Your task to perform on an android device: turn off location history Image 0: 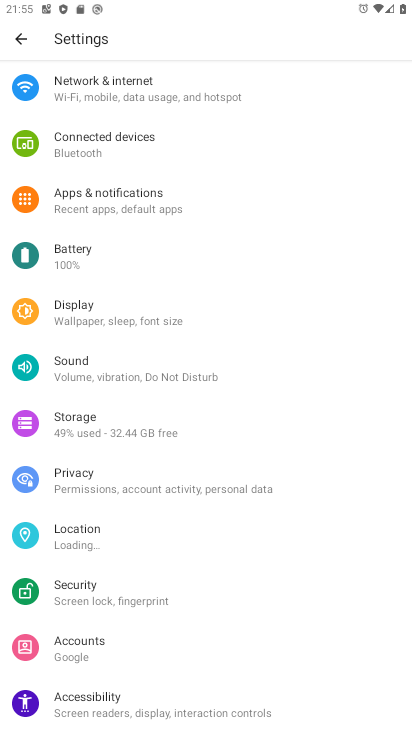
Step 0: press home button
Your task to perform on an android device: turn off location history Image 1: 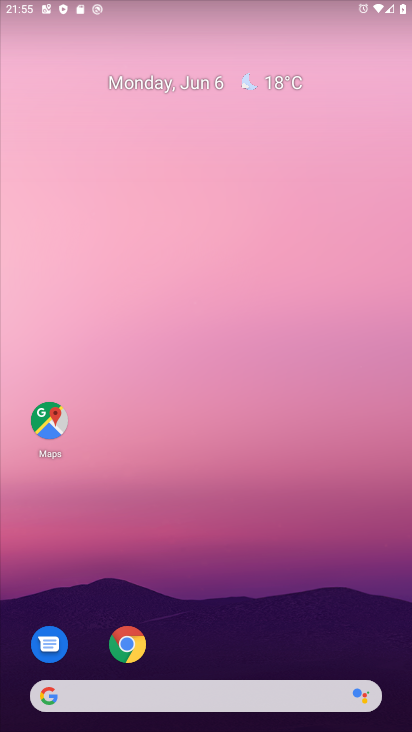
Step 1: drag from (309, 631) to (292, 272)
Your task to perform on an android device: turn off location history Image 2: 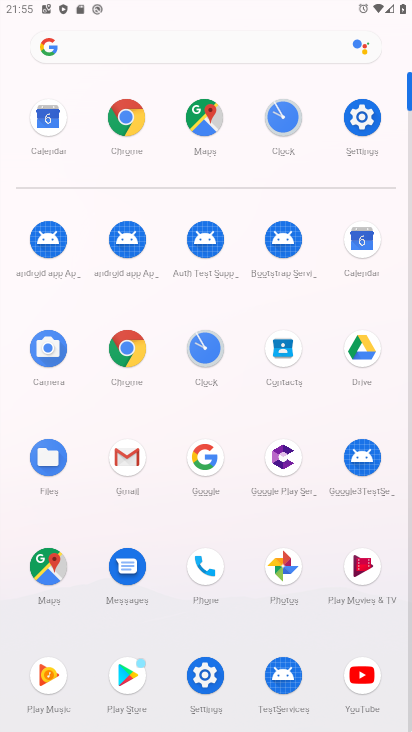
Step 2: click (201, 691)
Your task to perform on an android device: turn off location history Image 3: 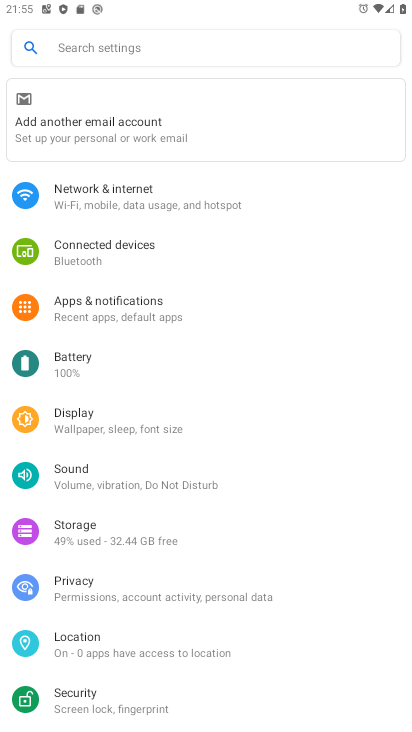
Step 3: click (138, 648)
Your task to perform on an android device: turn off location history Image 4: 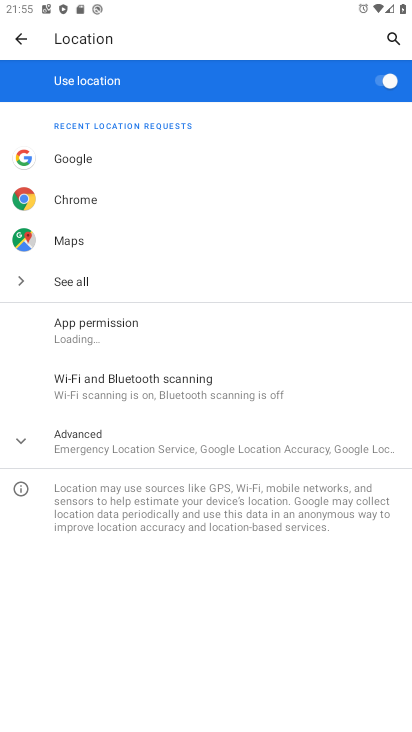
Step 4: click (210, 438)
Your task to perform on an android device: turn off location history Image 5: 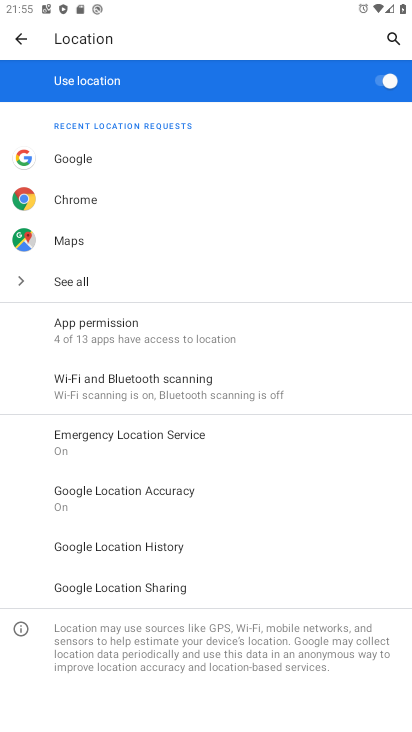
Step 5: click (163, 559)
Your task to perform on an android device: turn off location history Image 6: 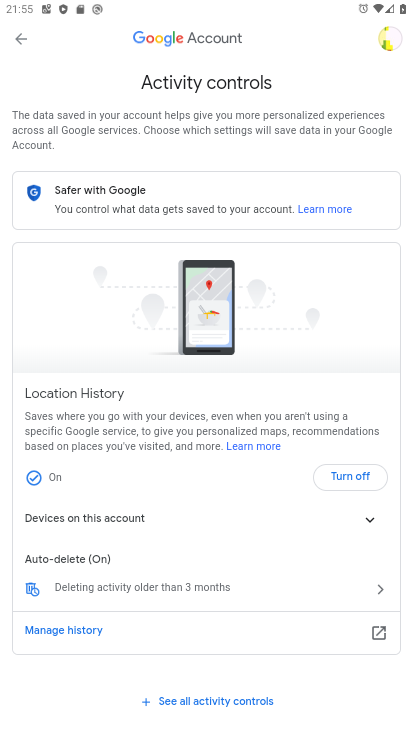
Step 6: click (112, 633)
Your task to perform on an android device: turn off location history Image 7: 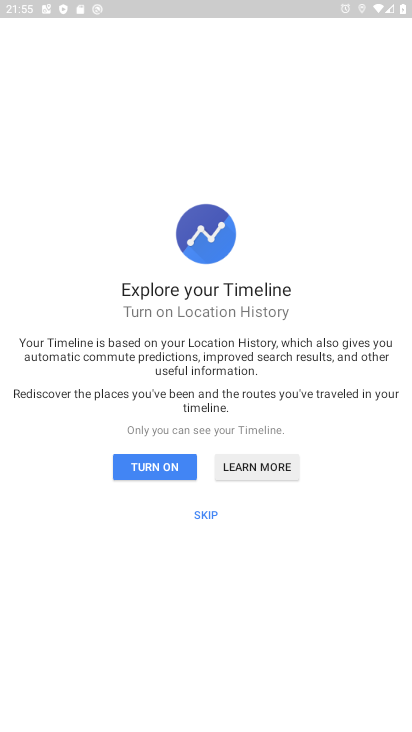
Step 7: drag from (215, 655) to (239, 297)
Your task to perform on an android device: turn off location history Image 8: 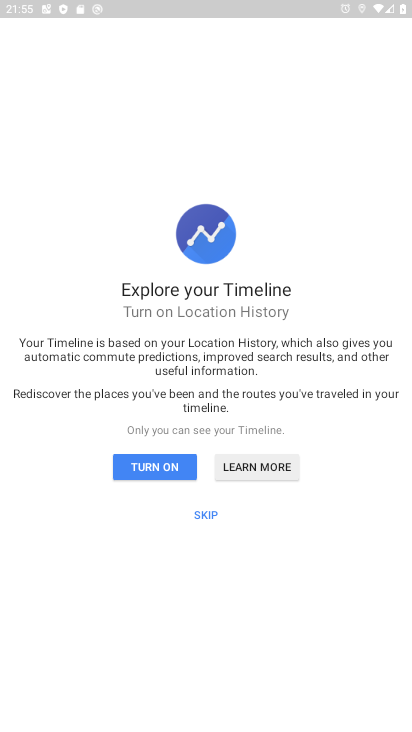
Step 8: click (207, 518)
Your task to perform on an android device: turn off location history Image 9: 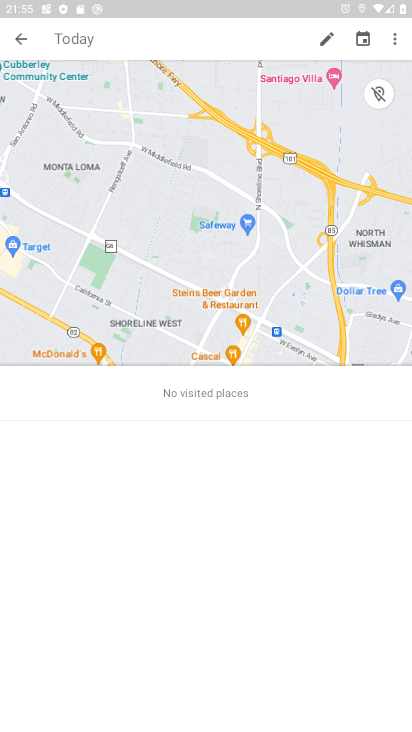
Step 9: click (398, 41)
Your task to perform on an android device: turn off location history Image 10: 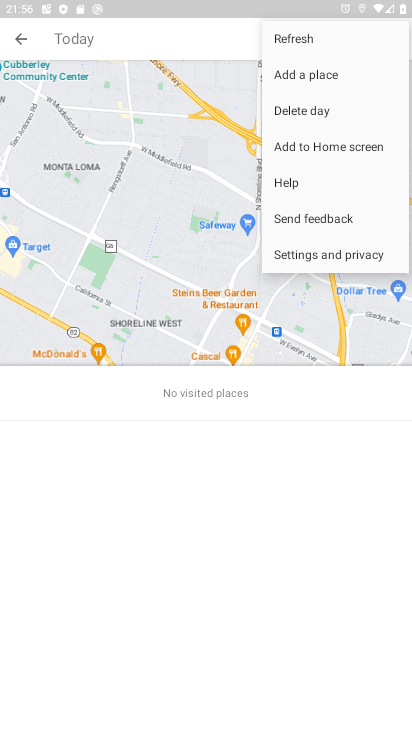
Step 10: click (304, 258)
Your task to perform on an android device: turn off location history Image 11: 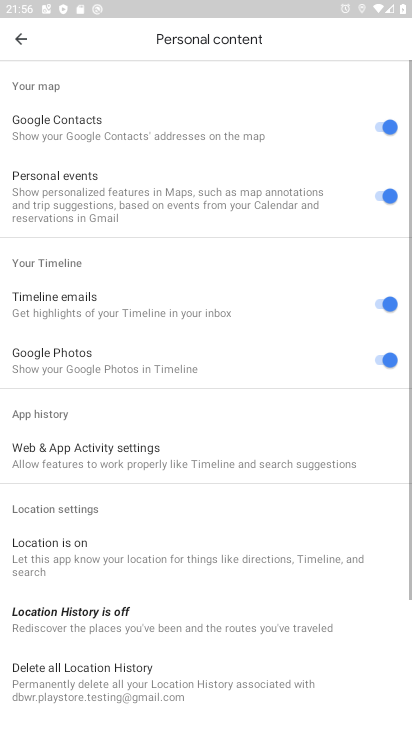
Step 11: drag from (265, 617) to (277, 290)
Your task to perform on an android device: turn off location history Image 12: 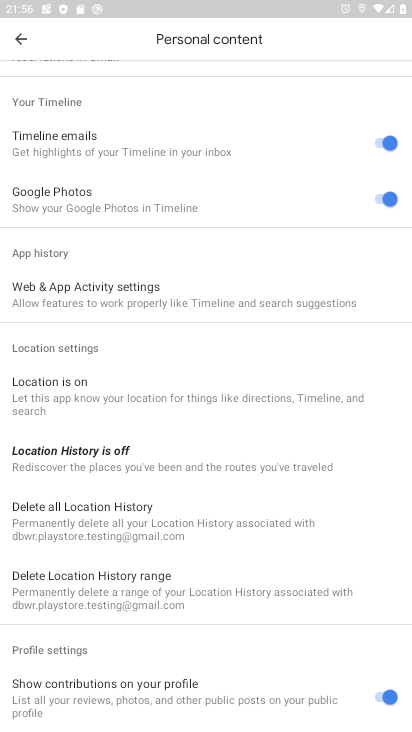
Step 12: click (226, 519)
Your task to perform on an android device: turn off location history Image 13: 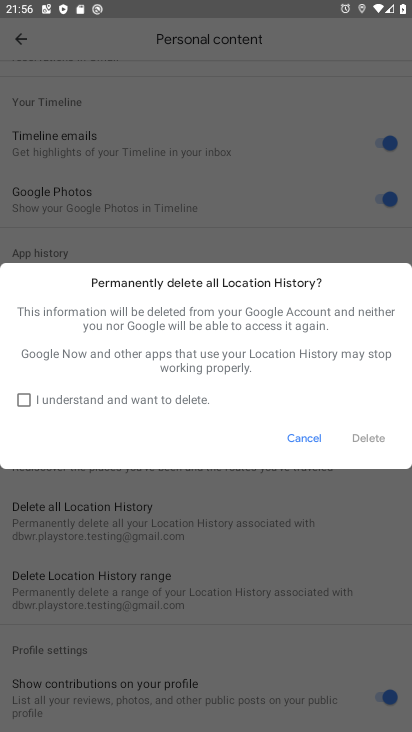
Step 13: click (94, 401)
Your task to perform on an android device: turn off location history Image 14: 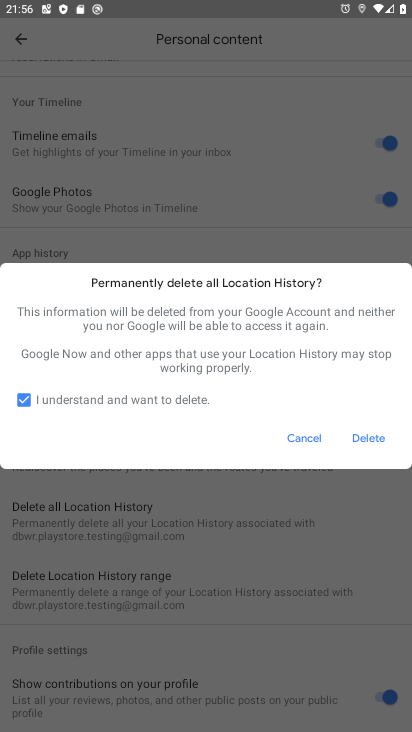
Step 14: click (380, 439)
Your task to perform on an android device: turn off location history Image 15: 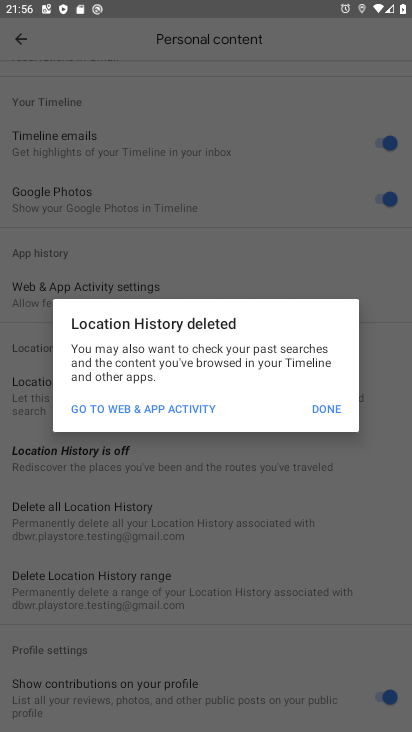
Step 15: click (335, 409)
Your task to perform on an android device: turn off location history Image 16: 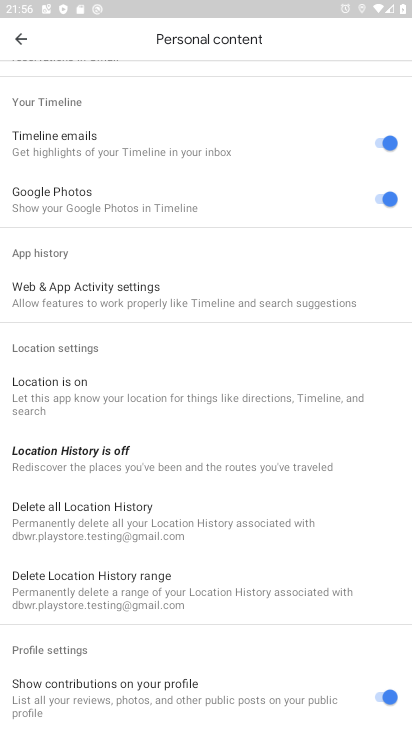
Step 16: task complete